Your task to perform on an android device: turn on priority inbox in the gmail app Image 0: 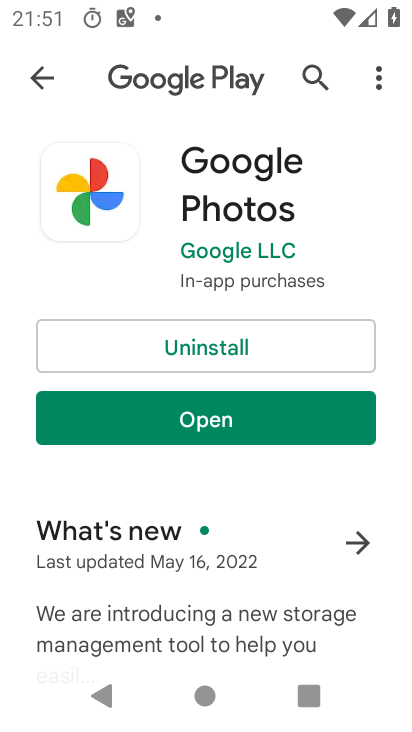
Step 0: press home button
Your task to perform on an android device: turn on priority inbox in the gmail app Image 1: 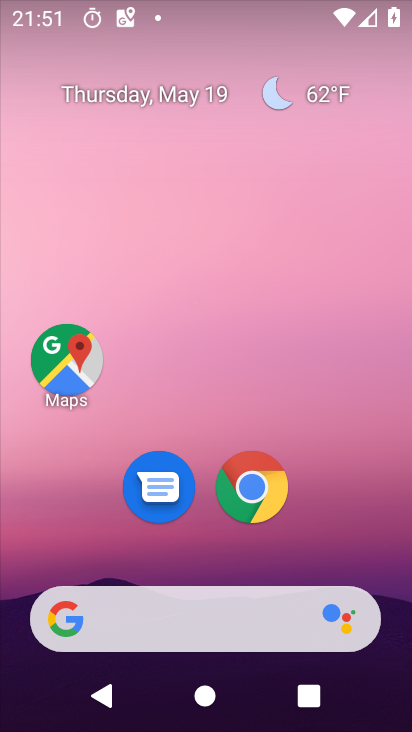
Step 1: drag from (158, 551) to (174, 161)
Your task to perform on an android device: turn on priority inbox in the gmail app Image 2: 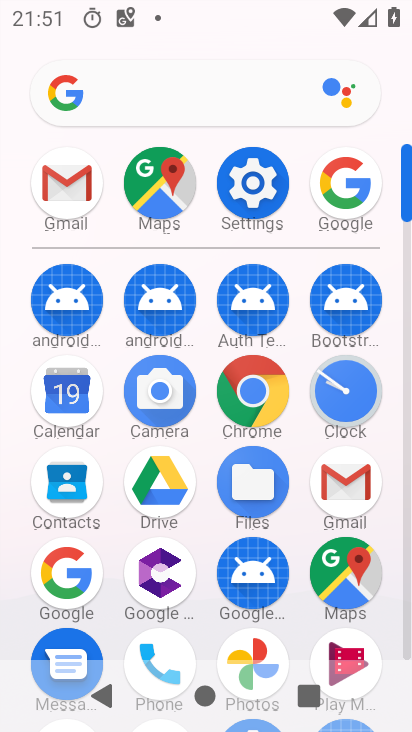
Step 2: click (81, 191)
Your task to perform on an android device: turn on priority inbox in the gmail app Image 3: 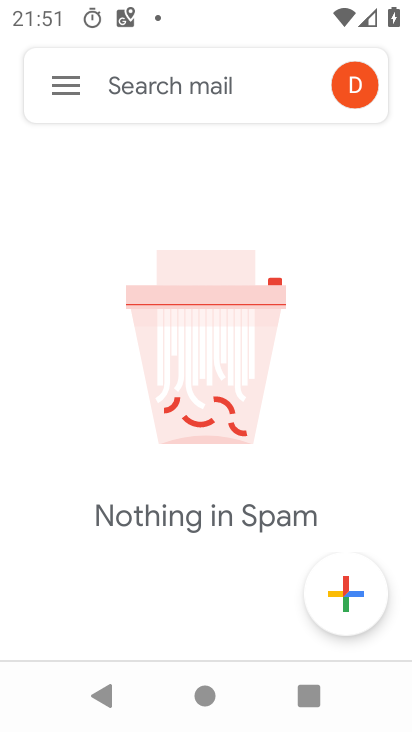
Step 3: click (69, 80)
Your task to perform on an android device: turn on priority inbox in the gmail app Image 4: 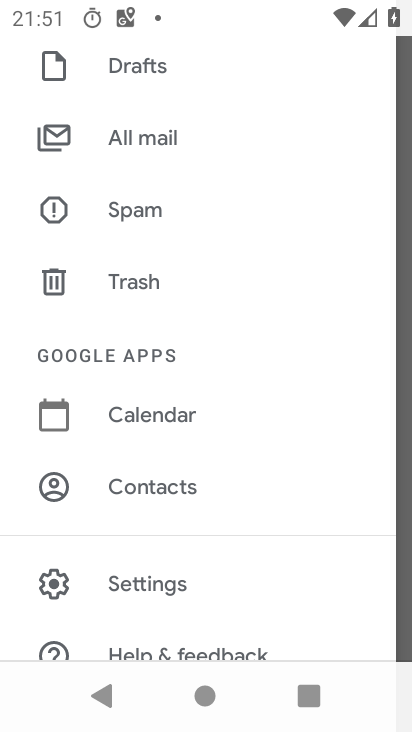
Step 4: click (146, 579)
Your task to perform on an android device: turn on priority inbox in the gmail app Image 5: 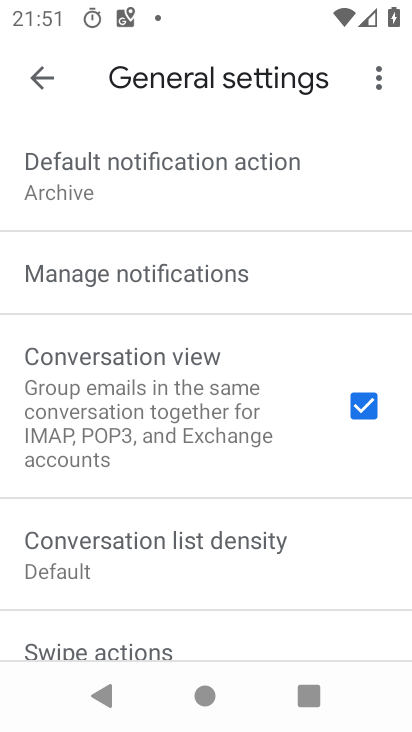
Step 5: click (44, 69)
Your task to perform on an android device: turn on priority inbox in the gmail app Image 6: 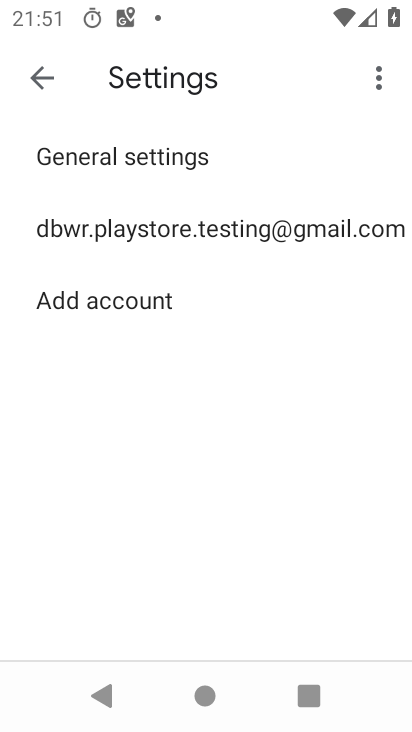
Step 6: click (143, 233)
Your task to perform on an android device: turn on priority inbox in the gmail app Image 7: 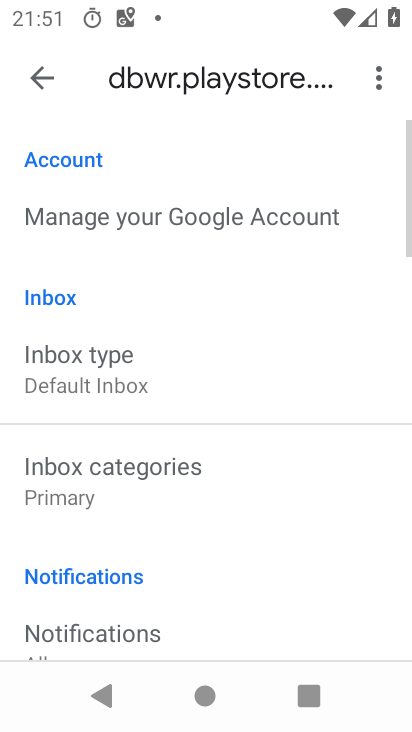
Step 7: click (122, 367)
Your task to perform on an android device: turn on priority inbox in the gmail app Image 8: 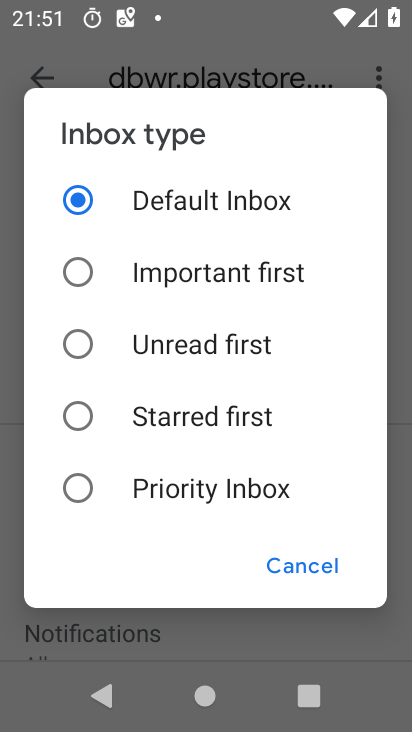
Step 8: click (83, 487)
Your task to perform on an android device: turn on priority inbox in the gmail app Image 9: 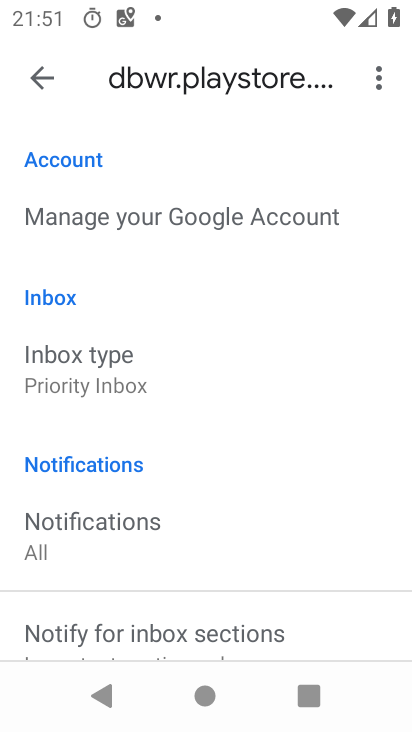
Step 9: task complete